Your task to perform on an android device: Open calendar and show me the third week of next month Image 0: 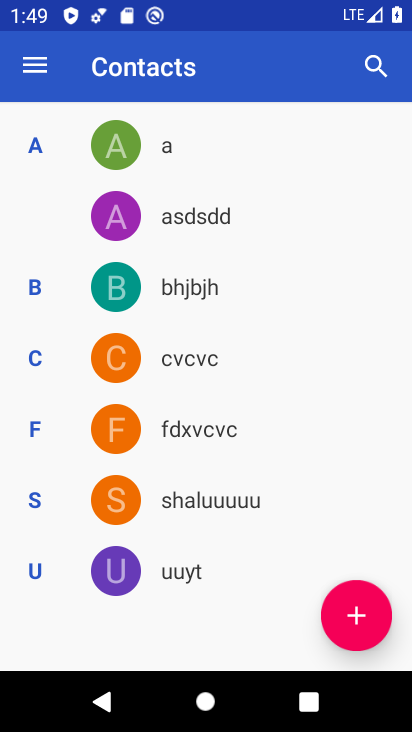
Step 0: press home button
Your task to perform on an android device: Open calendar and show me the third week of next month Image 1: 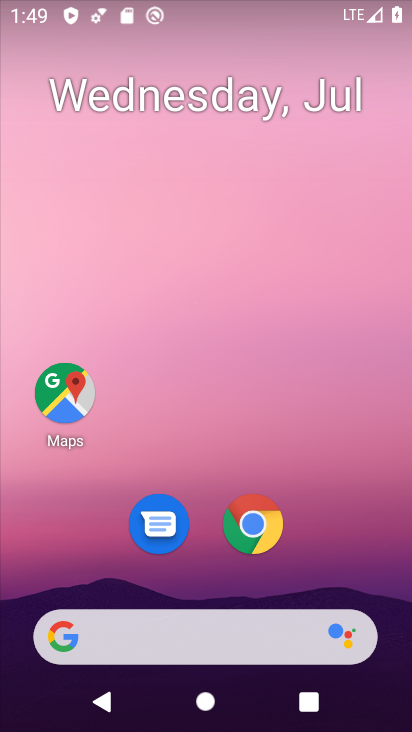
Step 1: drag from (301, 555) to (313, 22)
Your task to perform on an android device: Open calendar and show me the third week of next month Image 2: 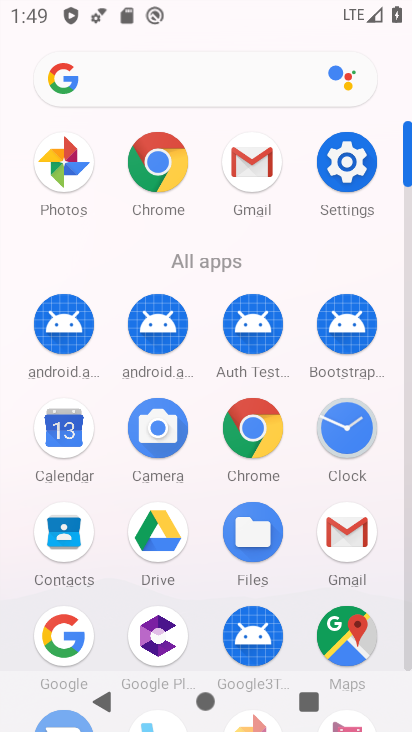
Step 2: click (69, 441)
Your task to perform on an android device: Open calendar and show me the third week of next month Image 3: 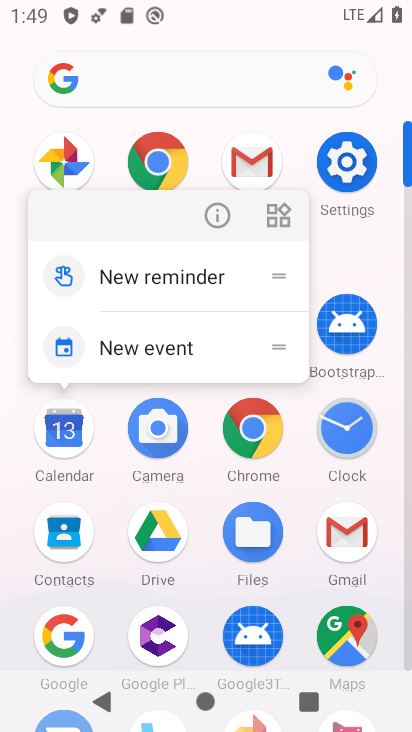
Step 3: click (74, 426)
Your task to perform on an android device: Open calendar and show me the third week of next month Image 4: 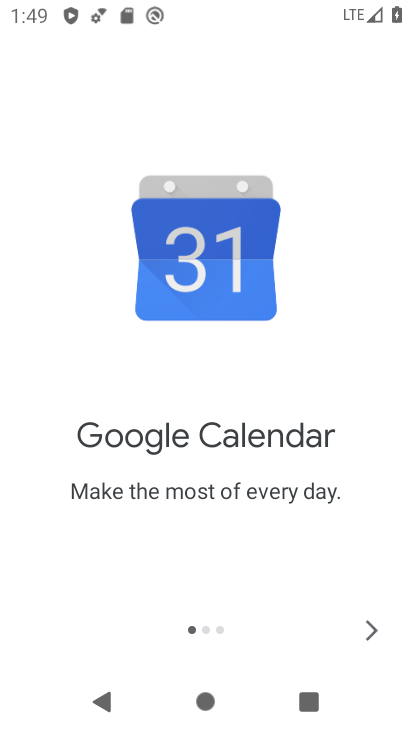
Step 4: click (376, 627)
Your task to perform on an android device: Open calendar and show me the third week of next month Image 5: 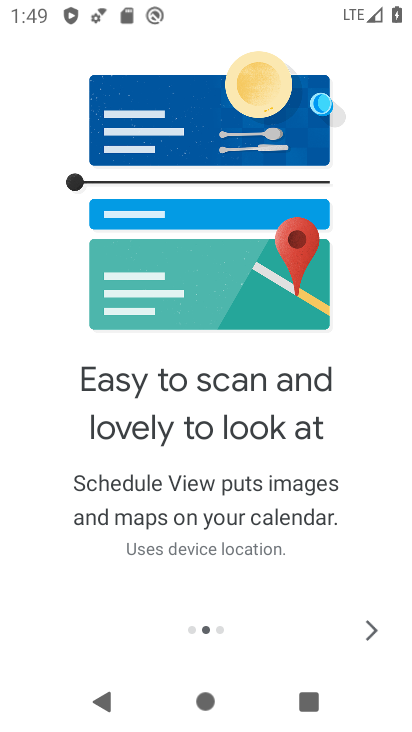
Step 5: click (376, 627)
Your task to perform on an android device: Open calendar and show me the third week of next month Image 6: 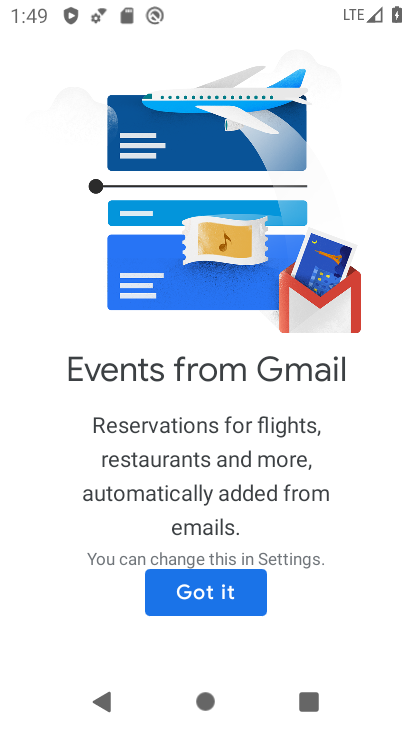
Step 6: click (241, 589)
Your task to perform on an android device: Open calendar and show me the third week of next month Image 7: 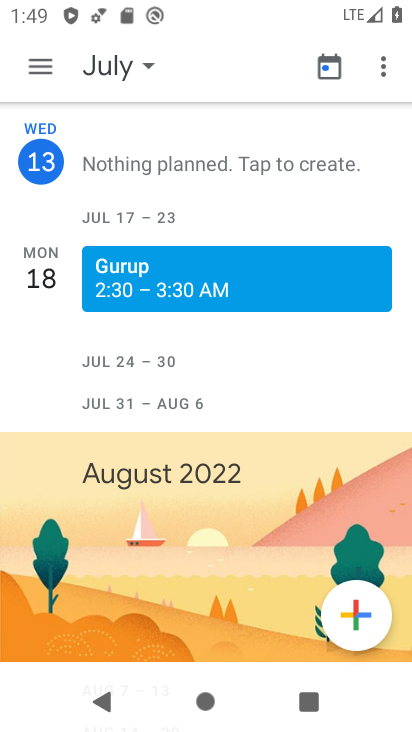
Step 7: click (30, 64)
Your task to perform on an android device: Open calendar and show me the third week of next month Image 8: 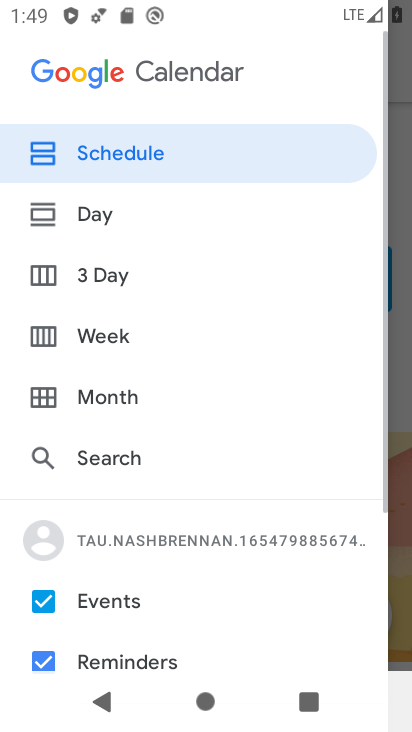
Step 8: click (42, 399)
Your task to perform on an android device: Open calendar and show me the third week of next month Image 9: 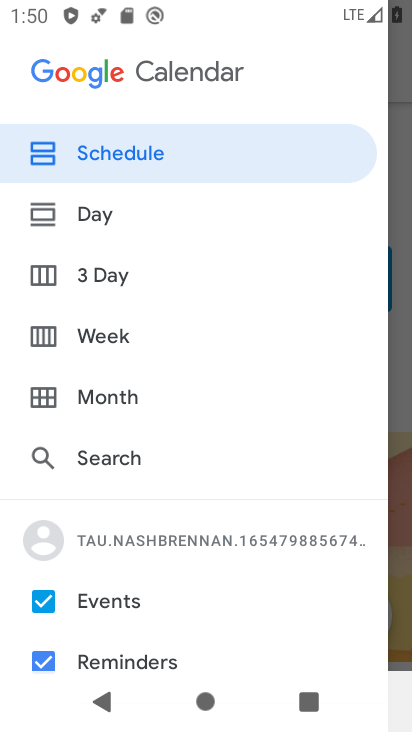
Step 9: click (41, 334)
Your task to perform on an android device: Open calendar and show me the third week of next month Image 10: 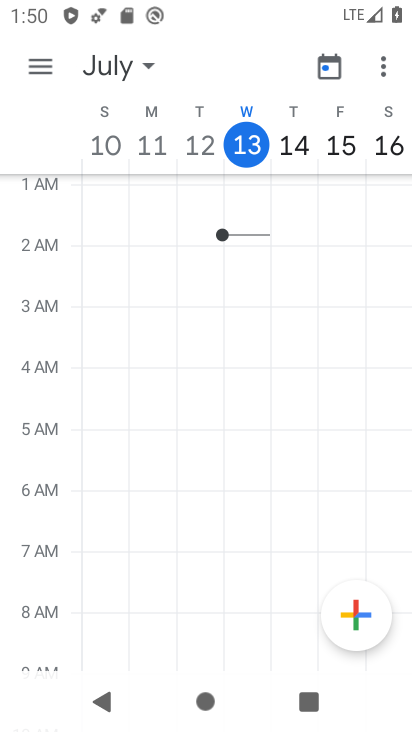
Step 10: task complete